Your task to perform on an android device: Go to notification settings Image 0: 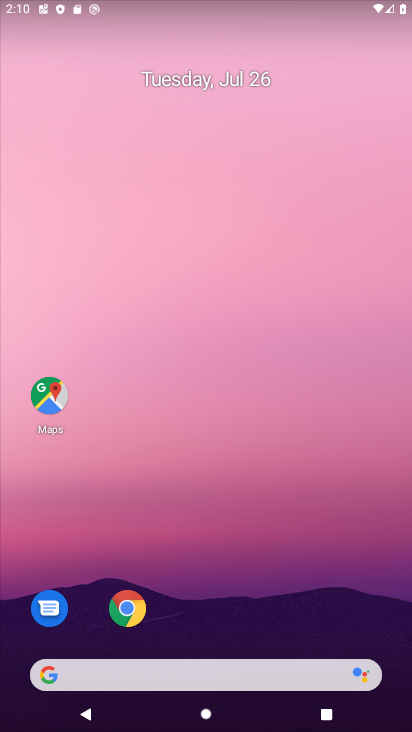
Step 0: drag from (285, 624) to (251, 63)
Your task to perform on an android device: Go to notification settings Image 1: 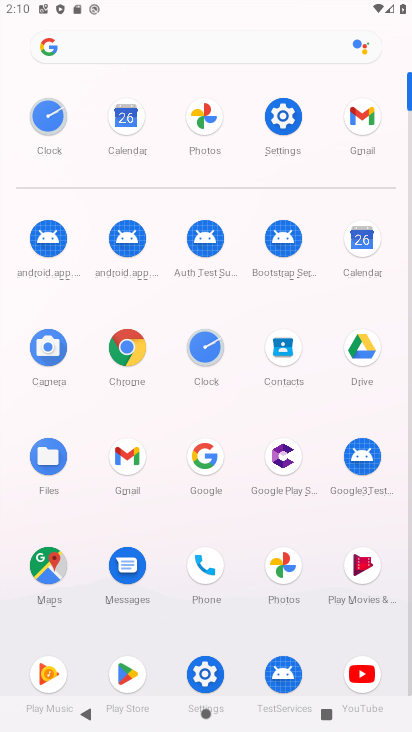
Step 1: click (273, 105)
Your task to perform on an android device: Go to notification settings Image 2: 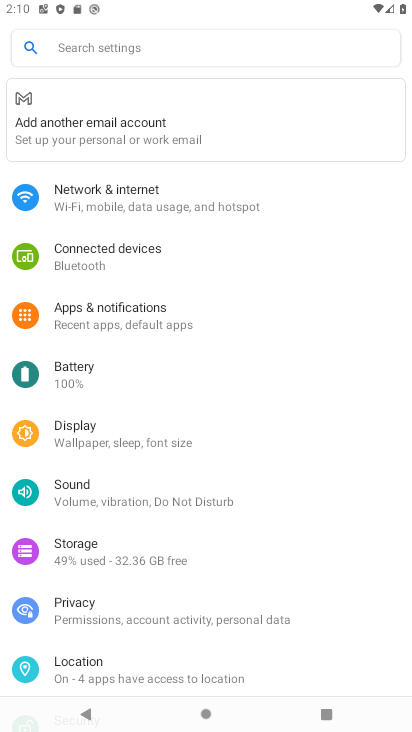
Step 2: task complete